Your task to perform on an android device: What is the news today? Image 0: 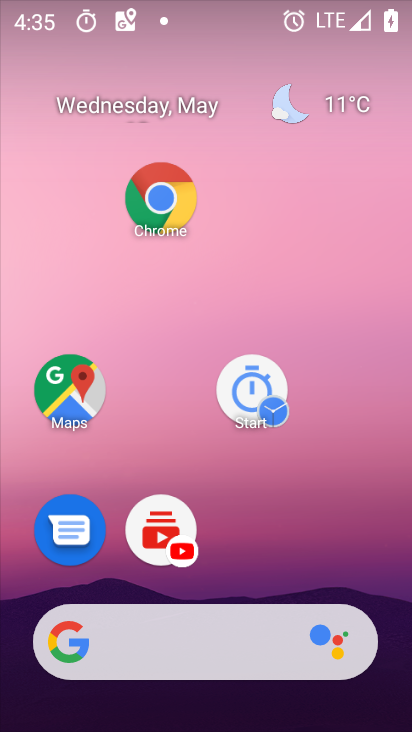
Step 0: drag from (366, 702) to (248, 221)
Your task to perform on an android device: What is the news today? Image 1: 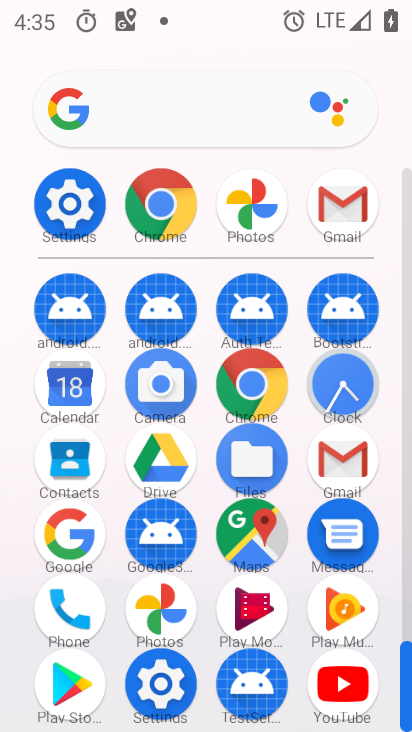
Step 1: task complete